Your task to perform on an android device: snooze an email in the gmail app Image 0: 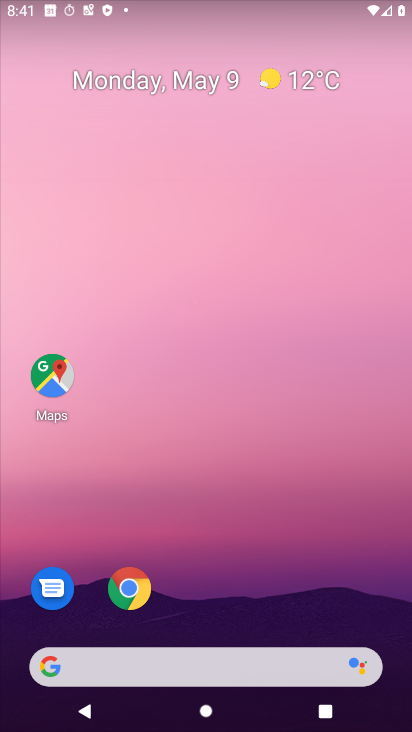
Step 0: drag from (172, 663) to (306, 272)
Your task to perform on an android device: snooze an email in the gmail app Image 1: 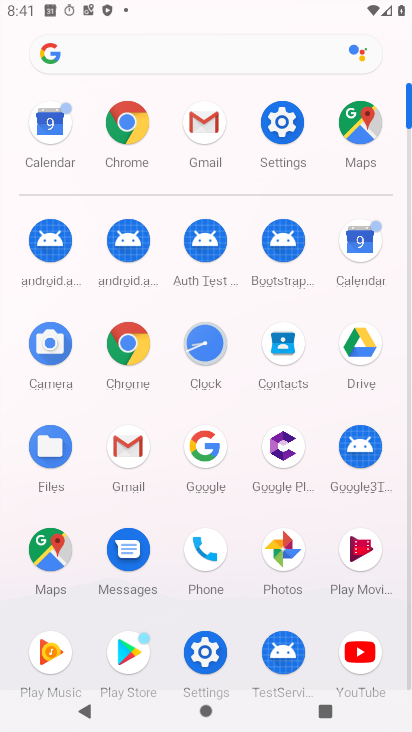
Step 1: click (210, 132)
Your task to perform on an android device: snooze an email in the gmail app Image 2: 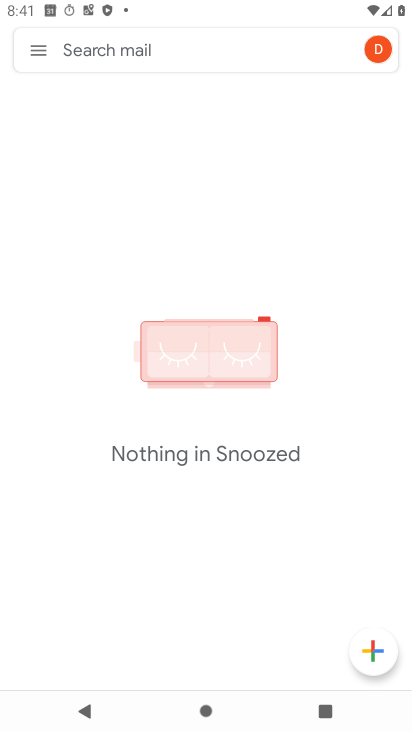
Step 2: click (37, 50)
Your task to perform on an android device: snooze an email in the gmail app Image 3: 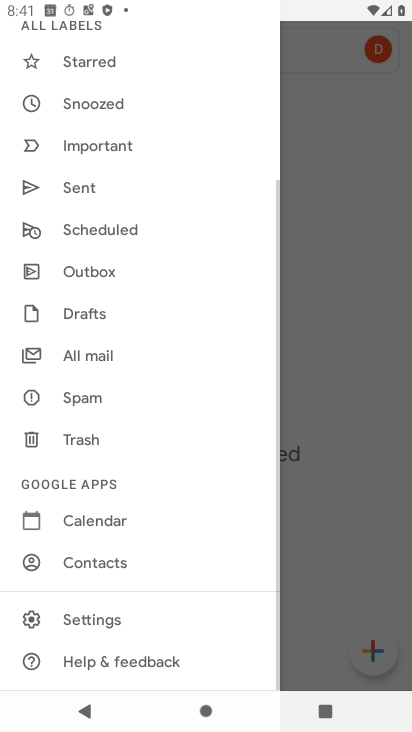
Step 3: click (98, 356)
Your task to perform on an android device: snooze an email in the gmail app Image 4: 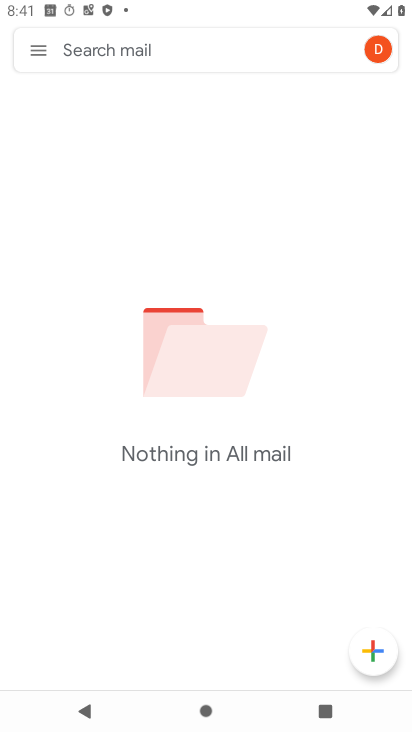
Step 4: task complete